Your task to perform on an android device: turn off wifi Image 0: 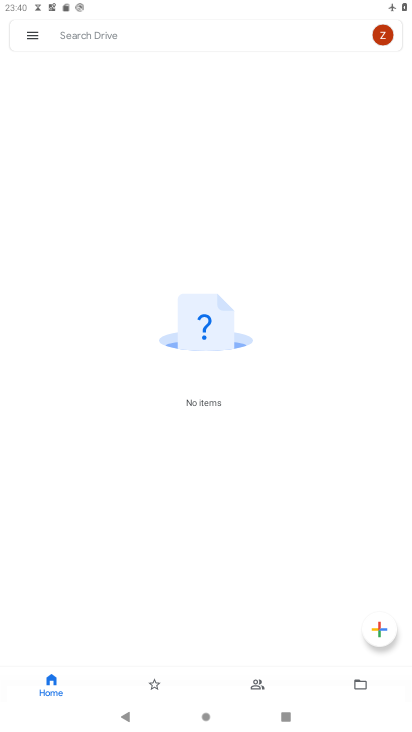
Step 0: press home button
Your task to perform on an android device: turn off wifi Image 1: 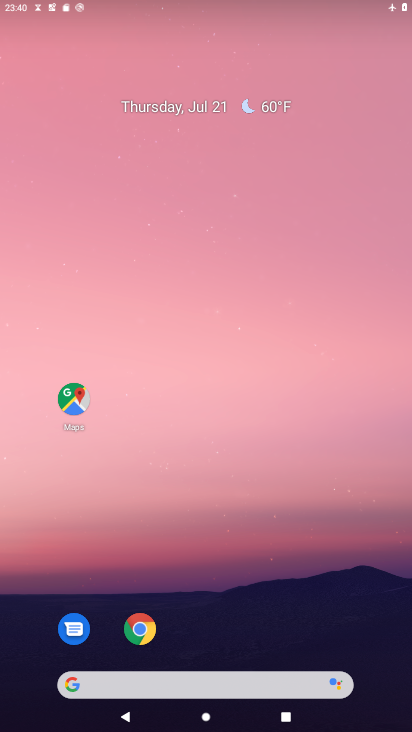
Step 1: drag from (221, 622) to (221, 32)
Your task to perform on an android device: turn off wifi Image 2: 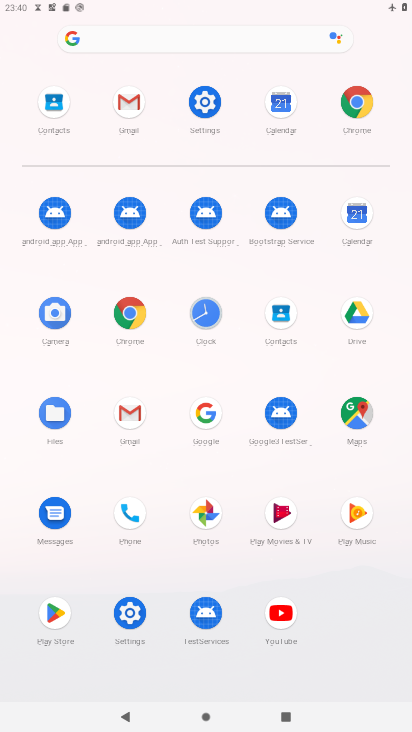
Step 2: click (203, 99)
Your task to perform on an android device: turn off wifi Image 3: 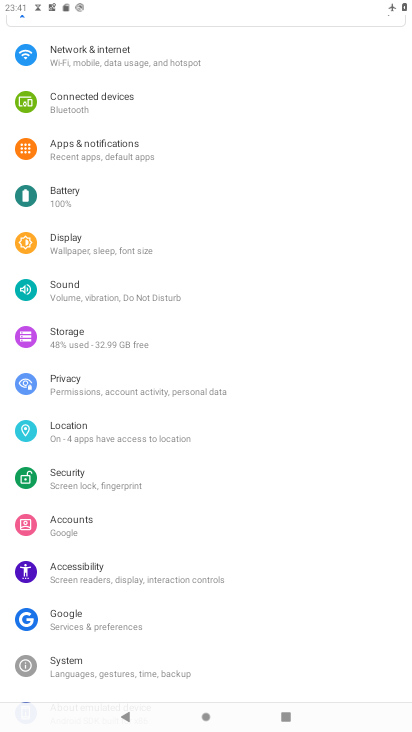
Step 3: click (98, 55)
Your task to perform on an android device: turn off wifi Image 4: 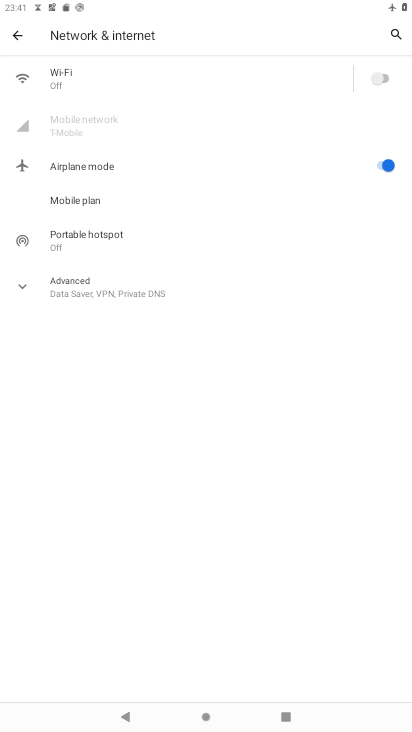
Step 4: click (101, 77)
Your task to perform on an android device: turn off wifi Image 5: 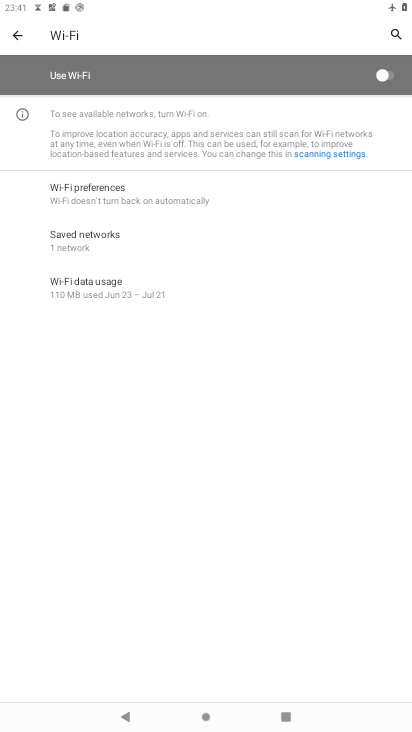
Step 5: task complete